Your task to perform on an android device: Go to display settings Image 0: 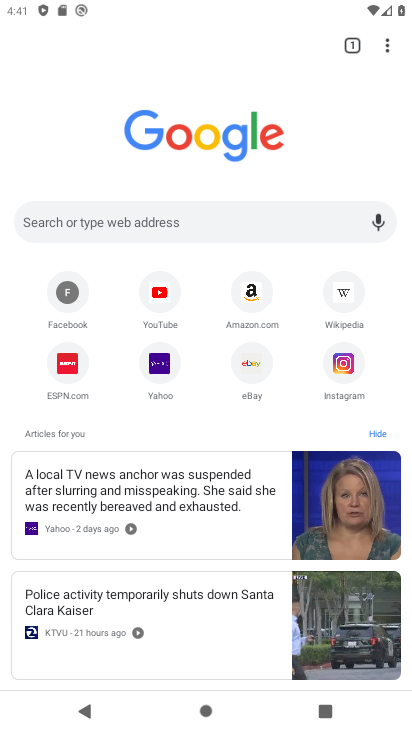
Step 0: drag from (137, 10) to (148, 731)
Your task to perform on an android device: Go to display settings Image 1: 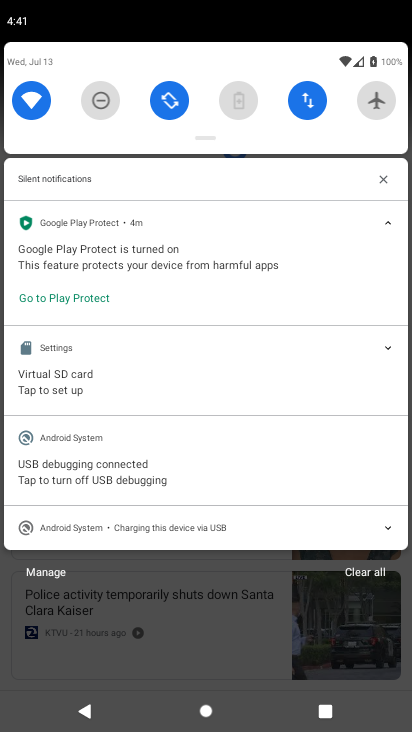
Step 1: drag from (203, 59) to (188, 599)
Your task to perform on an android device: Go to display settings Image 2: 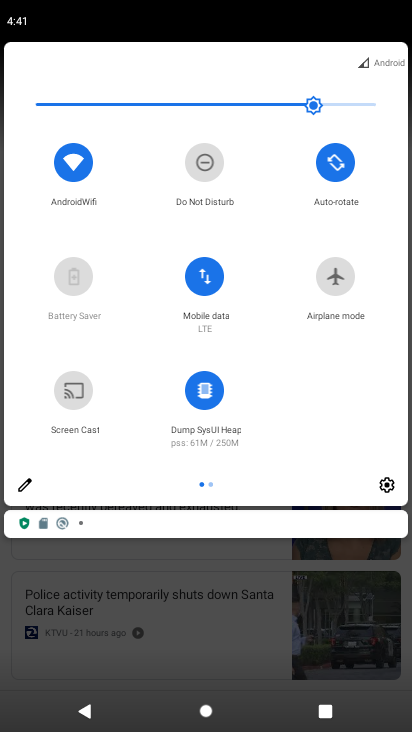
Step 2: click (393, 487)
Your task to perform on an android device: Go to display settings Image 3: 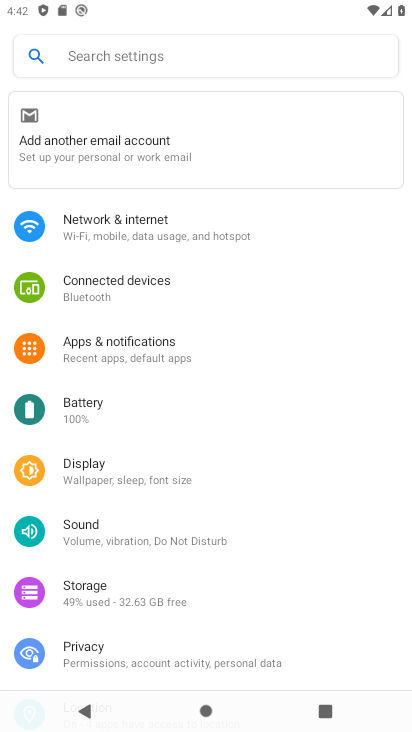
Step 3: click (128, 486)
Your task to perform on an android device: Go to display settings Image 4: 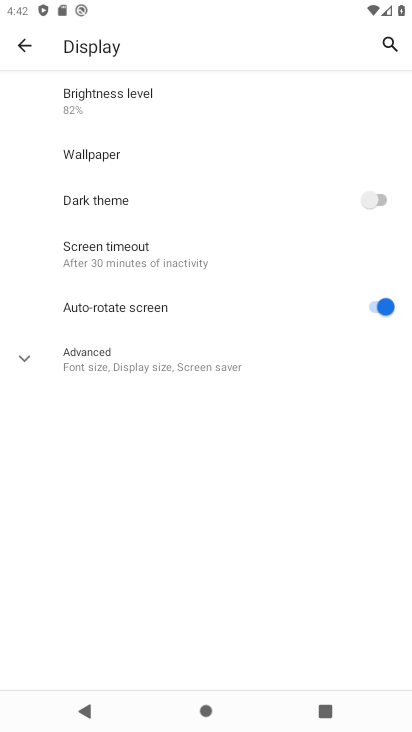
Step 4: task complete